Your task to perform on an android device: open chrome and create a bookmark for the current page Image 0: 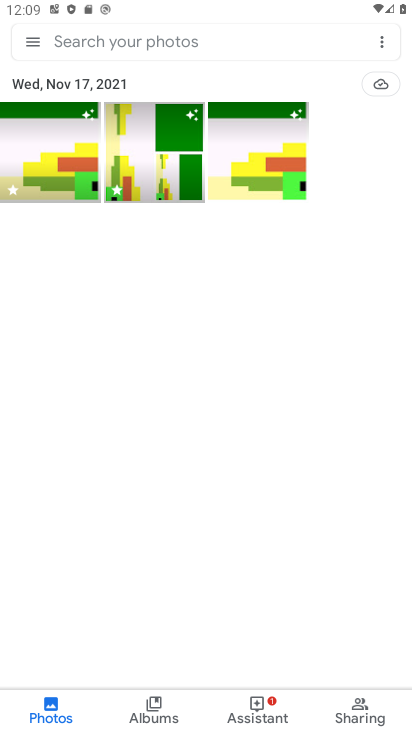
Step 0: press home button
Your task to perform on an android device: open chrome and create a bookmark for the current page Image 1: 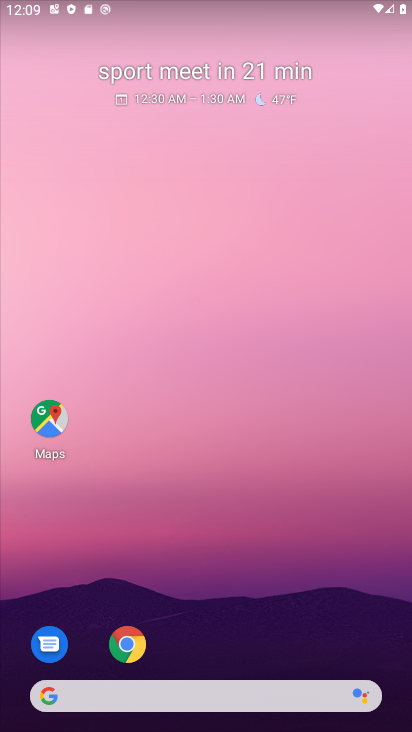
Step 1: click (125, 637)
Your task to perform on an android device: open chrome and create a bookmark for the current page Image 2: 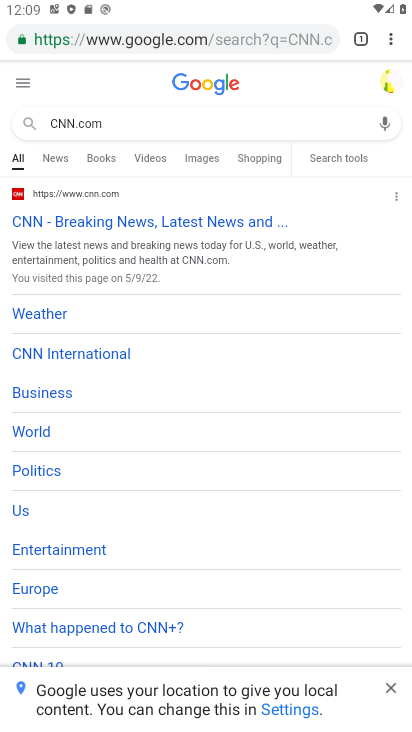
Step 2: click (391, 30)
Your task to perform on an android device: open chrome and create a bookmark for the current page Image 3: 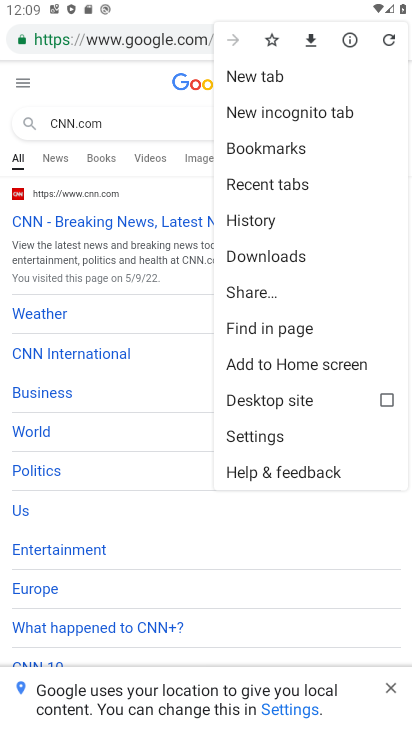
Step 3: click (277, 33)
Your task to perform on an android device: open chrome and create a bookmark for the current page Image 4: 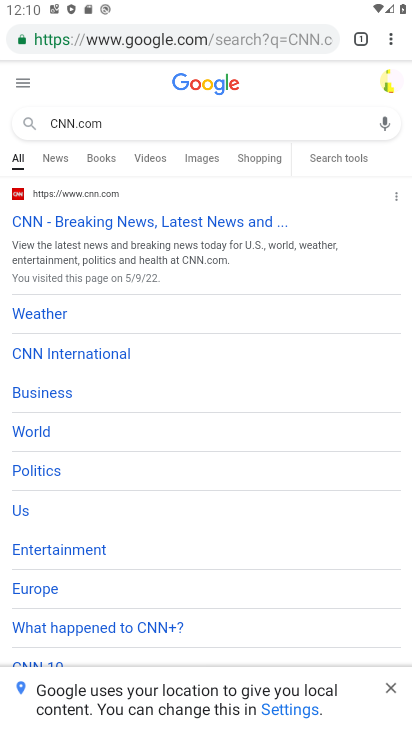
Step 4: task complete